Your task to perform on an android device: Check the weather Image 0: 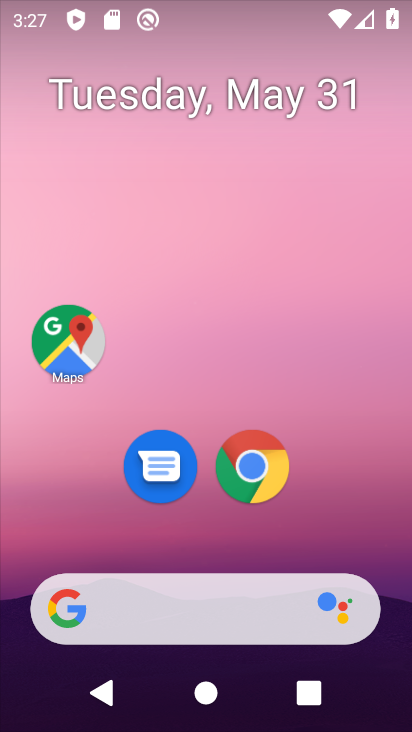
Step 0: drag from (10, 272) to (407, 227)
Your task to perform on an android device: Check the weather Image 1: 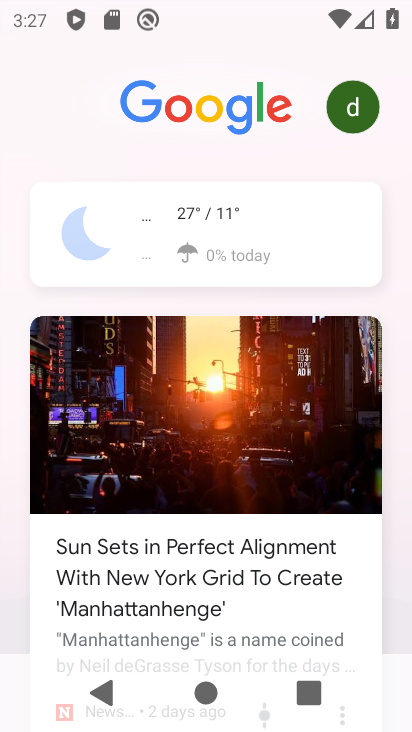
Step 1: click (235, 265)
Your task to perform on an android device: Check the weather Image 2: 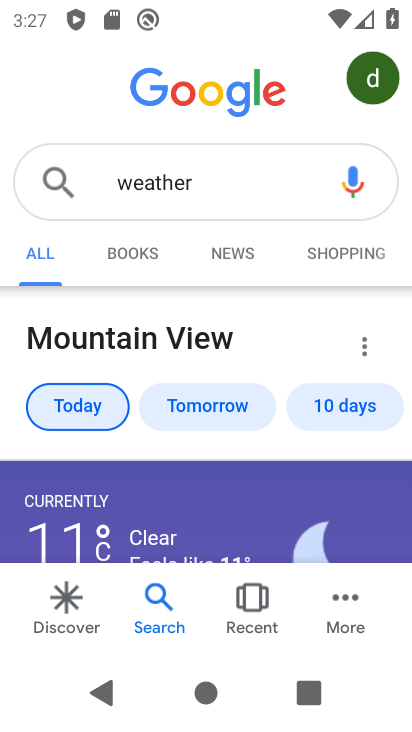
Step 2: task complete